Your task to perform on an android device: Open Reddit.com Image 0: 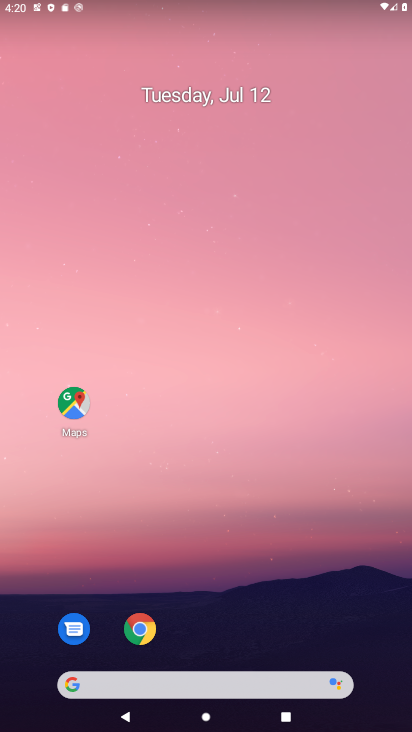
Step 0: press home button
Your task to perform on an android device: Open Reddit.com Image 1: 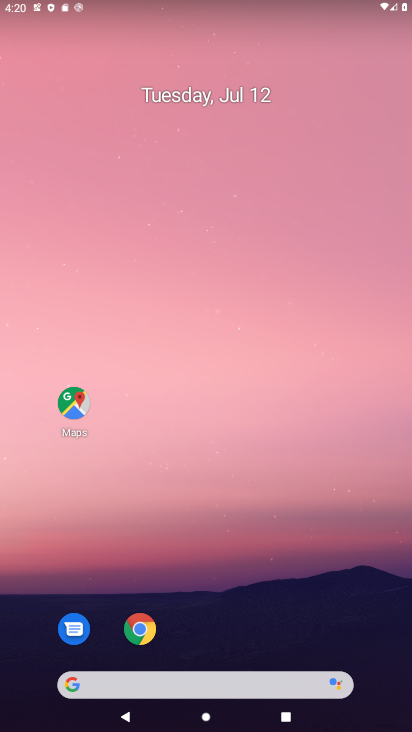
Step 1: click (73, 685)
Your task to perform on an android device: Open Reddit.com Image 2: 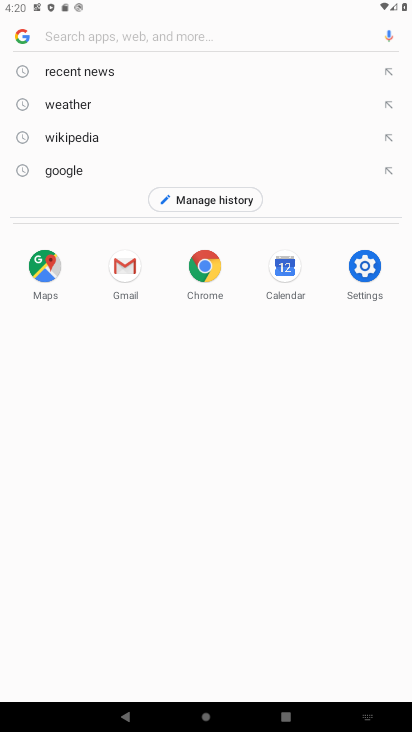
Step 2: type "Reddit.com"
Your task to perform on an android device: Open Reddit.com Image 3: 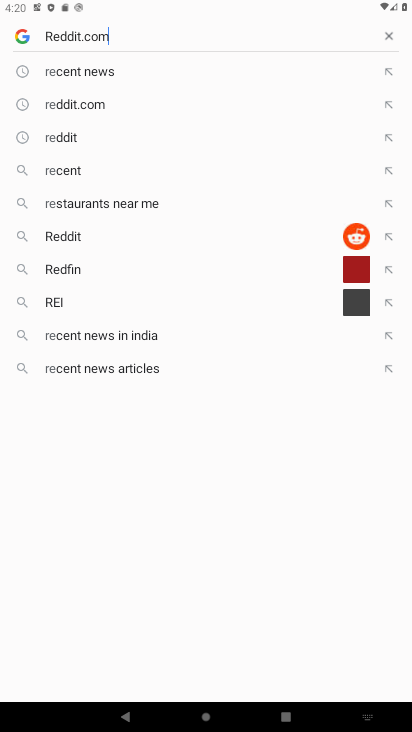
Step 3: press enter
Your task to perform on an android device: Open Reddit.com Image 4: 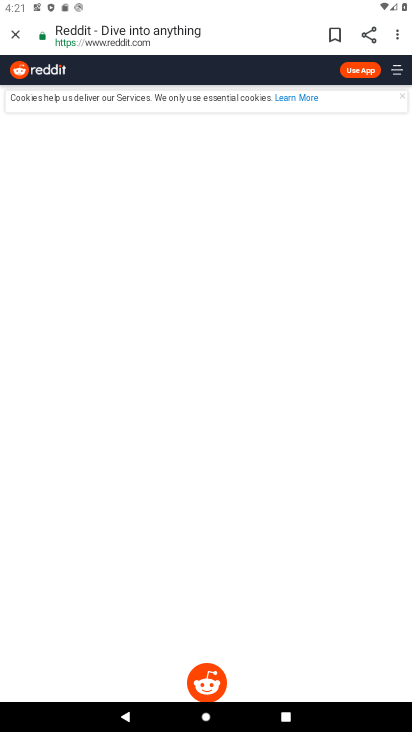
Step 4: task complete